Your task to perform on an android device: toggle javascript in the chrome app Image 0: 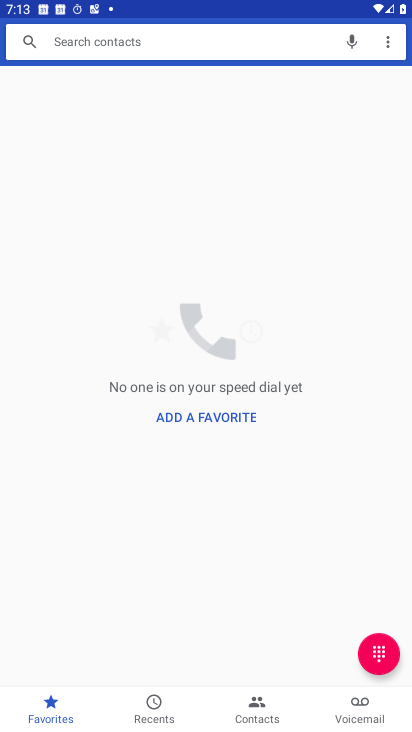
Step 0: press home button
Your task to perform on an android device: toggle javascript in the chrome app Image 1: 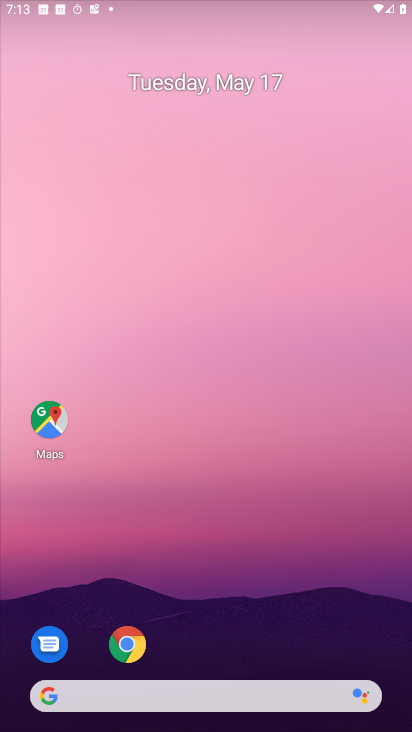
Step 1: drag from (359, 641) to (375, 97)
Your task to perform on an android device: toggle javascript in the chrome app Image 2: 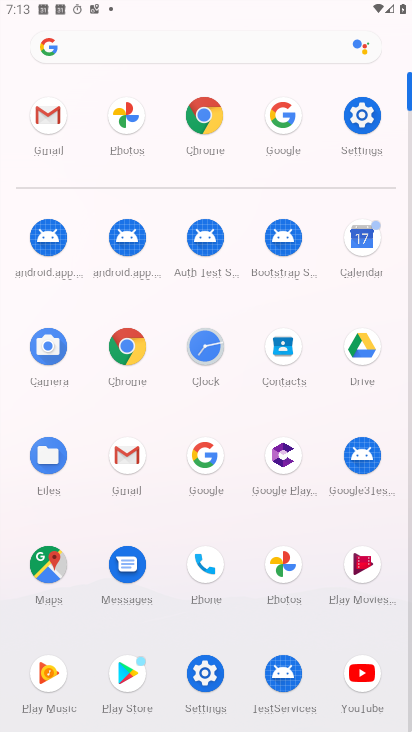
Step 2: click (213, 116)
Your task to perform on an android device: toggle javascript in the chrome app Image 3: 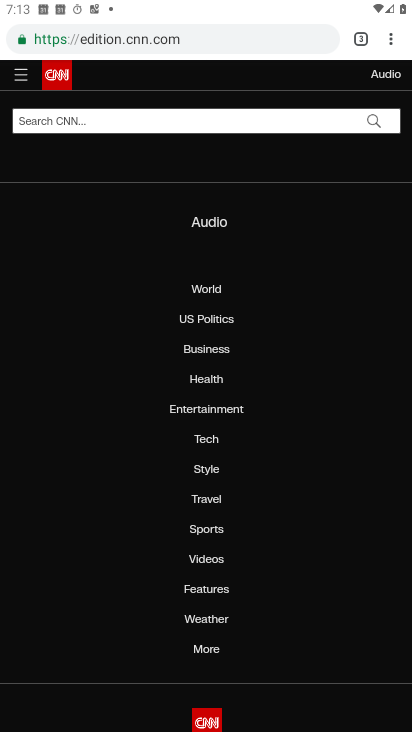
Step 3: press home button
Your task to perform on an android device: toggle javascript in the chrome app Image 4: 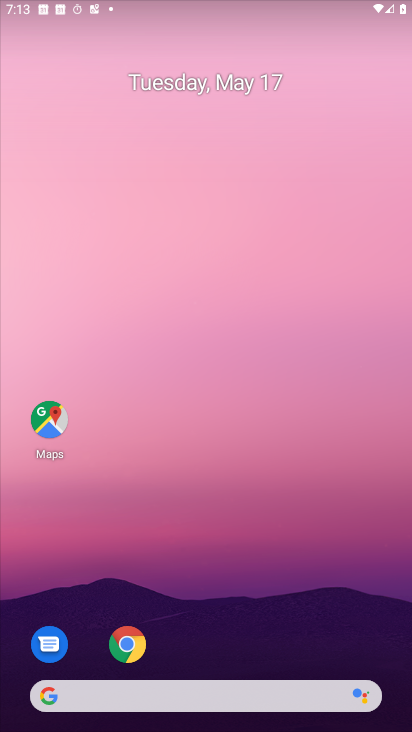
Step 4: drag from (331, 615) to (291, 19)
Your task to perform on an android device: toggle javascript in the chrome app Image 5: 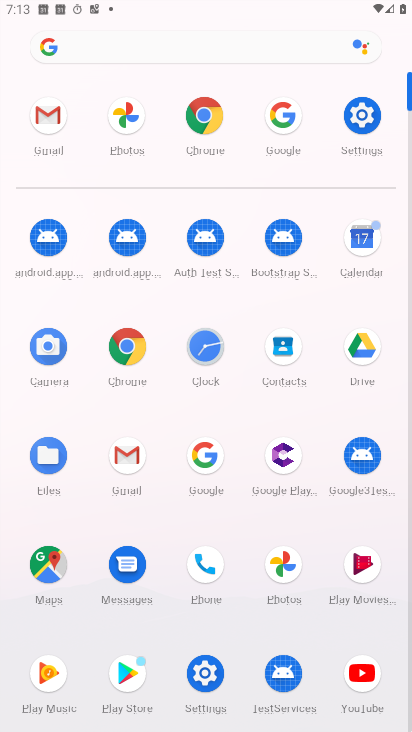
Step 5: click (220, 68)
Your task to perform on an android device: toggle javascript in the chrome app Image 6: 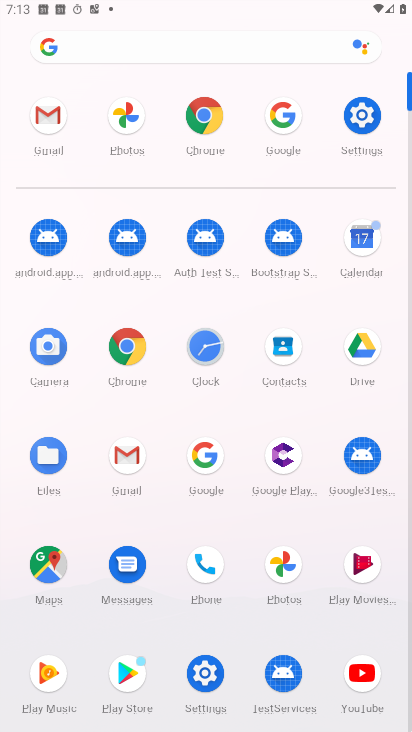
Step 6: click (227, 128)
Your task to perform on an android device: toggle javascript in the chrome app Image 7: 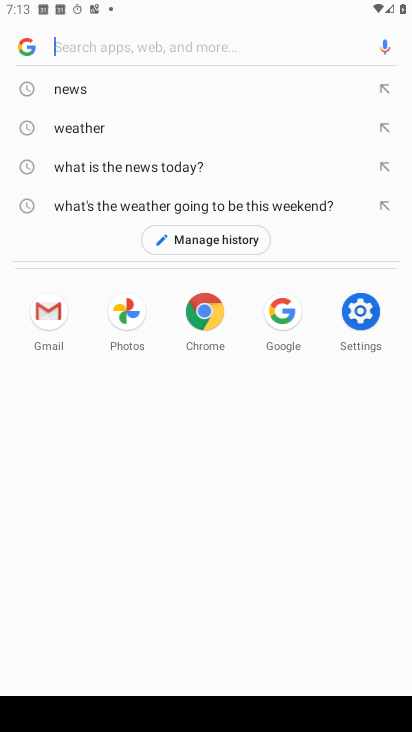
Step 7: press back button
Your task to perform on an android device: toggle javascript in the chrome app Image 8: 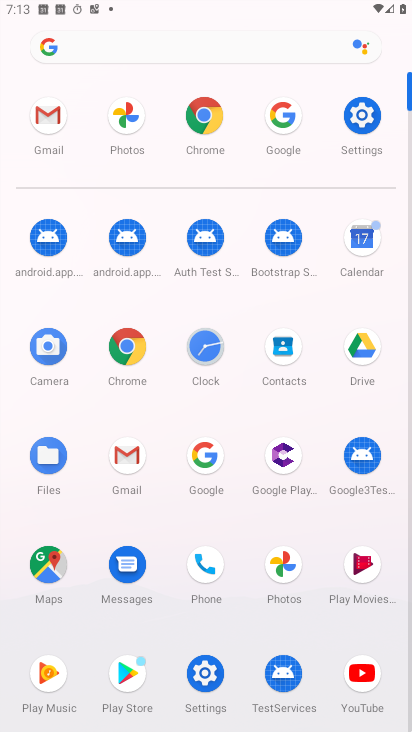
Step 8: click (195, 113)
Your task to perform on an android device: toggle javascript in the chrome app Image 9: 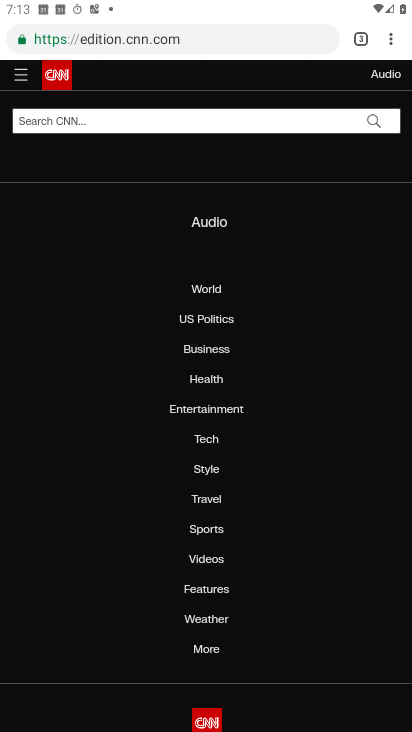
Step 9: press back button
Your task to perform on an android device: toggle javascript in the chrome app Image 10: 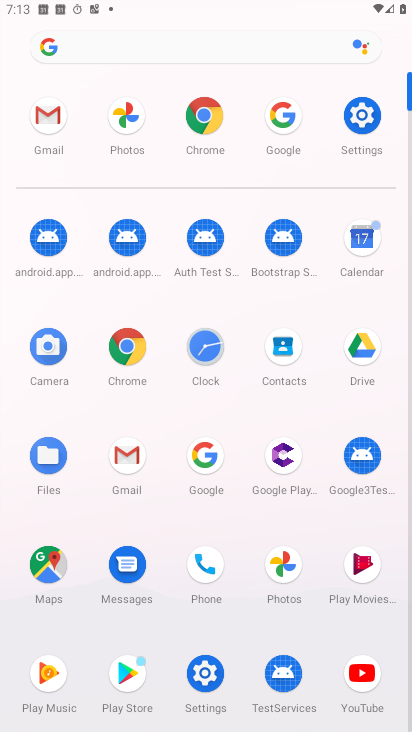
Step 10: click (203, 111)
Your task to perform on an android device: toggle javascript in the chrome app Image 11: 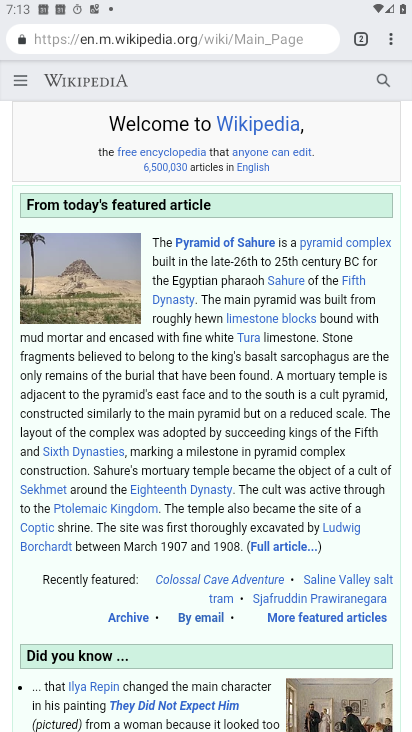
Step 11: press back button
Your task to perform on an android device: toggle javascript in the chrome app Image 12: 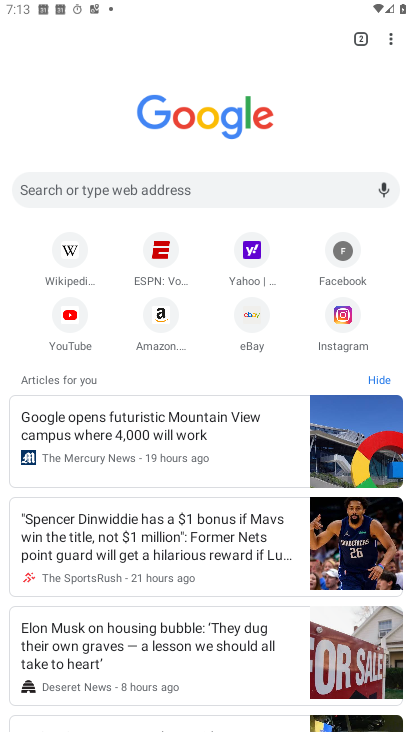
Step 12: click (390, 41)
Your task to perform on an android device: toggle javascript in the chrome app Image 13: 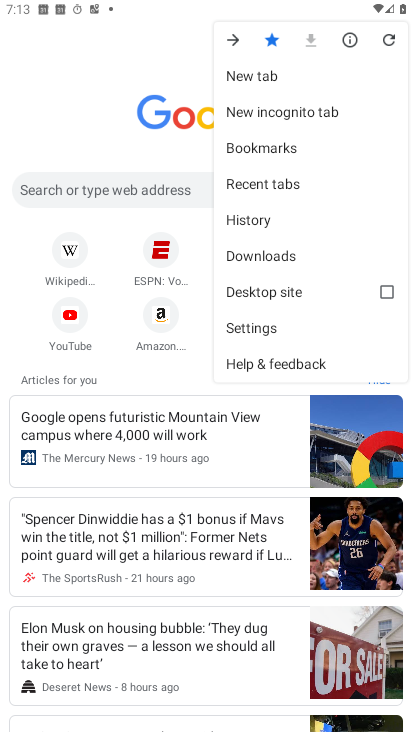
Step 13: click (257, 322)
Your task to perform on an android device: toggle javascript in the chrome app Image 14: 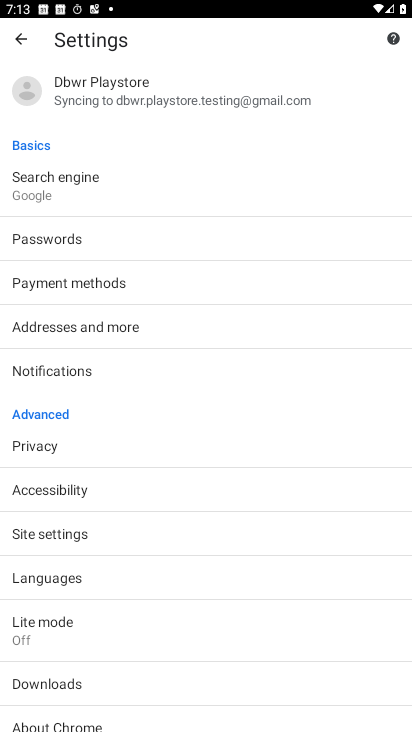
Step 14: click (94, 541)
Your task to perform on an android device: toggle javascript in the chrome app Image 15: 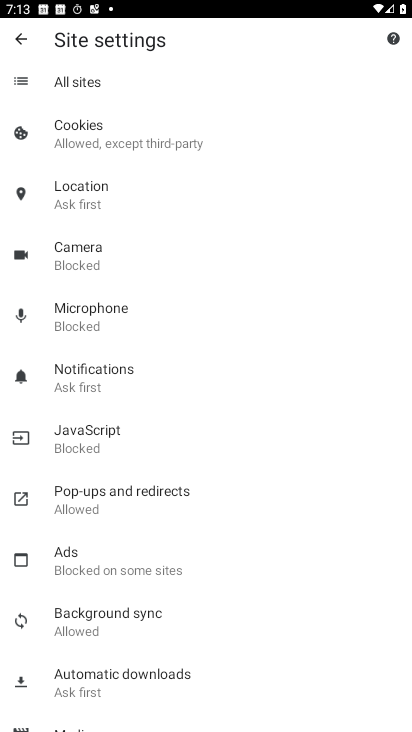
Step 15: click (116, 446)
Your task to perform on an android device: toggle javascript in the chrome app Image 16: 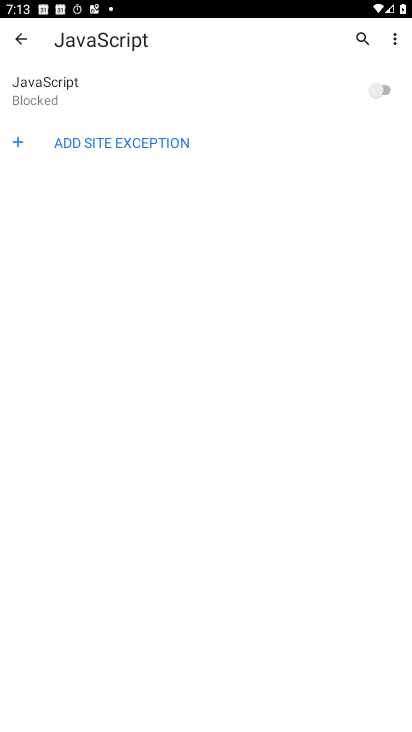
Step 16: click (340, 89)
Your task to perform on an android device: toggle javascript in the chrome app Image 17: 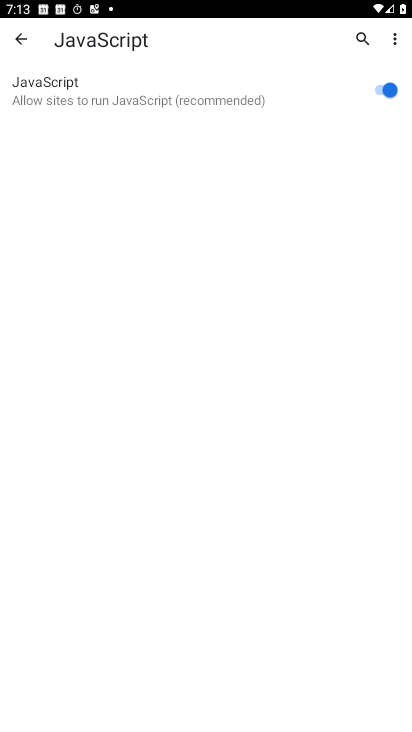
Step 17: task complete